Your task to perform on an android device: Play the last video I watched on Youtube Image 0: 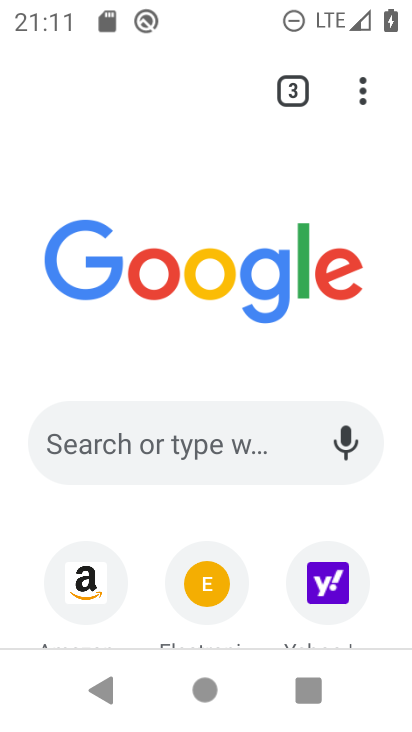
Step 0: drag from (252, 363) to (240, 21)
Your task to perform on an android device: Play the last video I watched on Youtube Image 1: 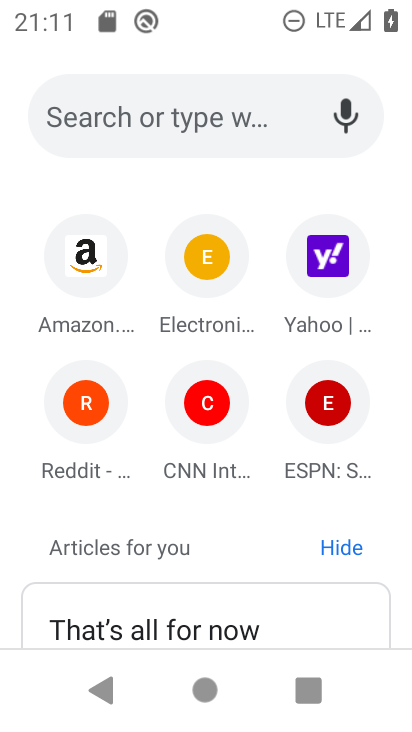
Step 1: press home button
Your task to perform on an android device: Play the last video I watched on Youtube Image 2: 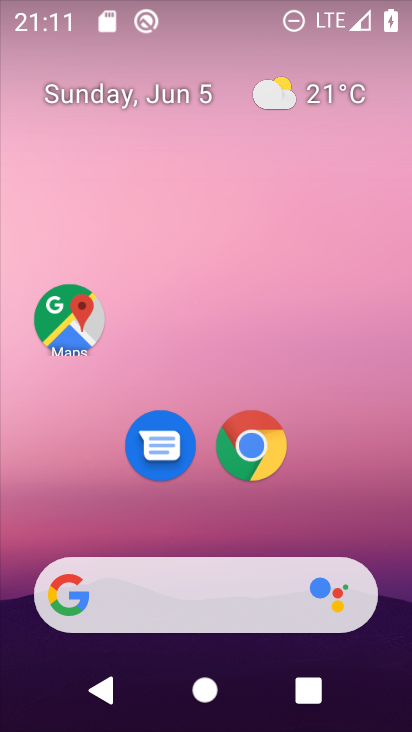
Step 2: drag from (329, 488) to (362, 55)
Your task to perform on an android device: Play the last video I watched on Youtube Image 3: 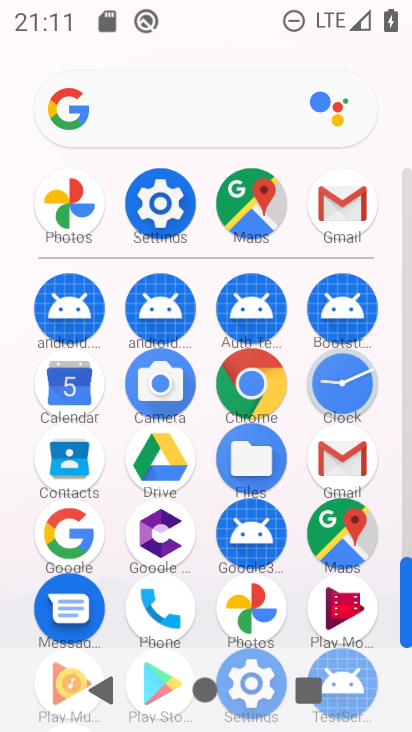
Step 3: drag from (210, 577) to (265, 266)
Your task to perform on an android device: Play the last video I watched on Youtube Image 4: 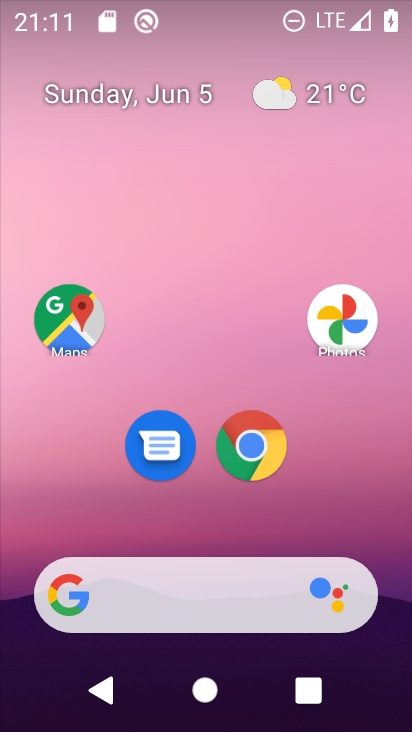
Step 4: drag from (297, 510) to (324, 169)
Your task to perform on an android device: Play the last video I watched on Youtube Image 5: 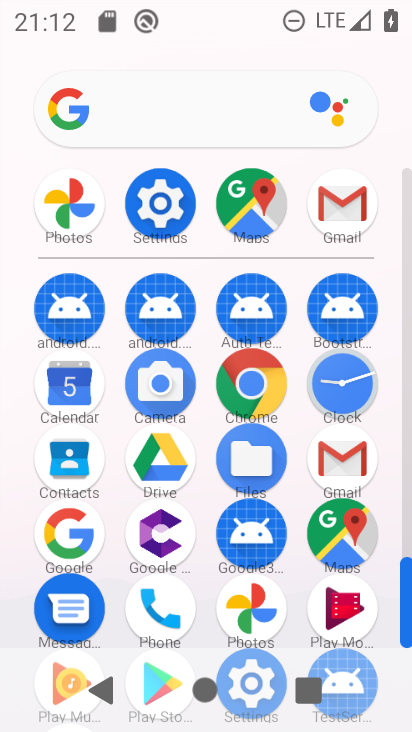
Step 5: drag from (205, 581) to (243, 336)
Your task to perform on an android device: Play the last video I watched on Youtube Image 6: 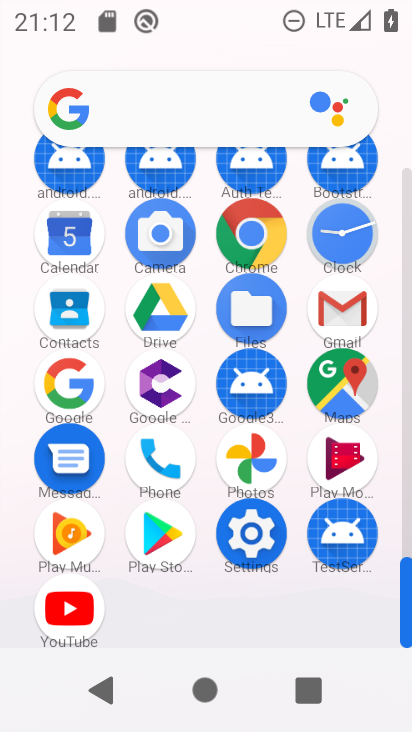
Step 6: click (72, 603)
Your task to perform on an android device: Play the last video I watched on Youtube Image 7: 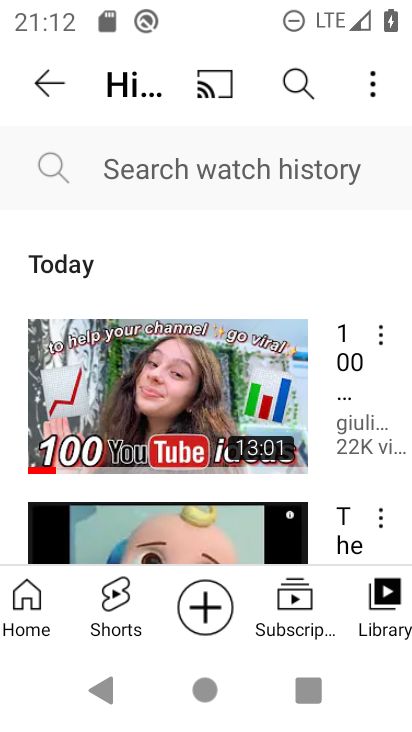
Step 7: click (156, 370)
Your task to perform on an android device: Play the last video I watched on Youtube Image 8: 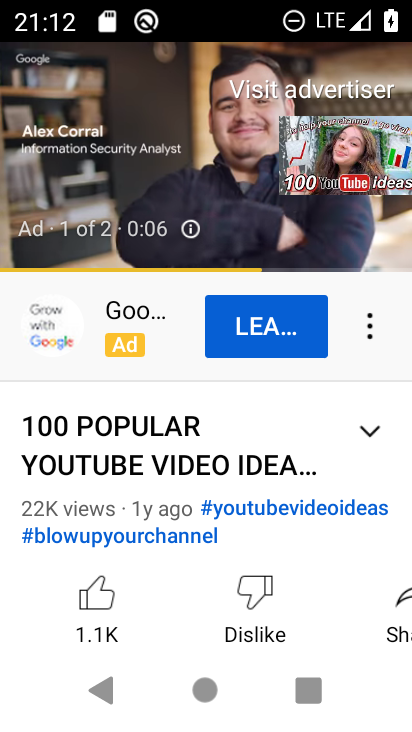
Step 8: task complete